Your task to perform on an android device: What's the weather going to be this weekend? Image 0: 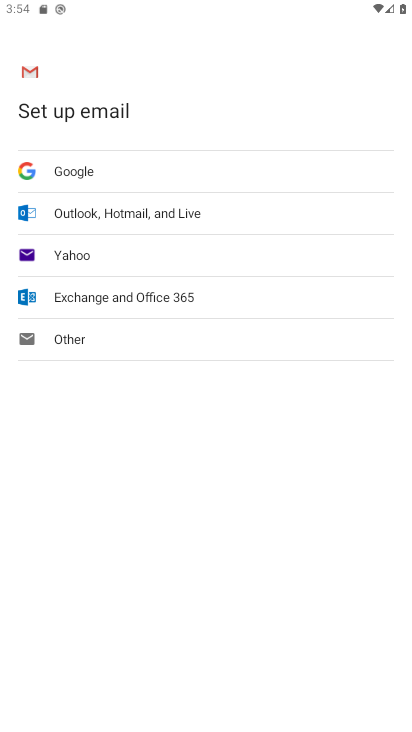
Step 0: press home button
Your task to perform on an android device: What's the weather going to be this weekend? Image 1: 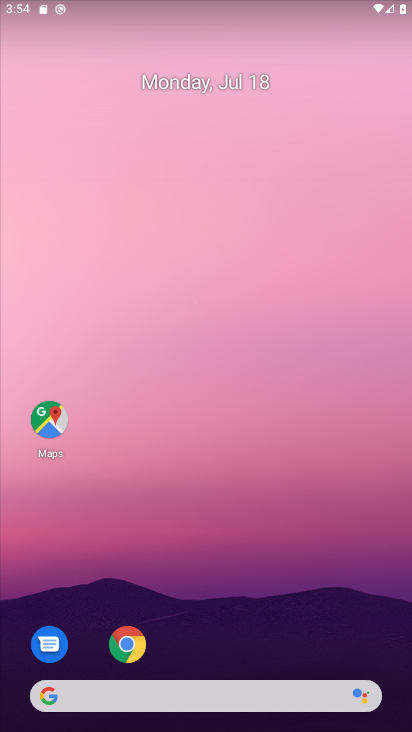
Step 1: click (224, 686)
Your task to perform on an android device: What's the weather going to be this weekend? Image 2: 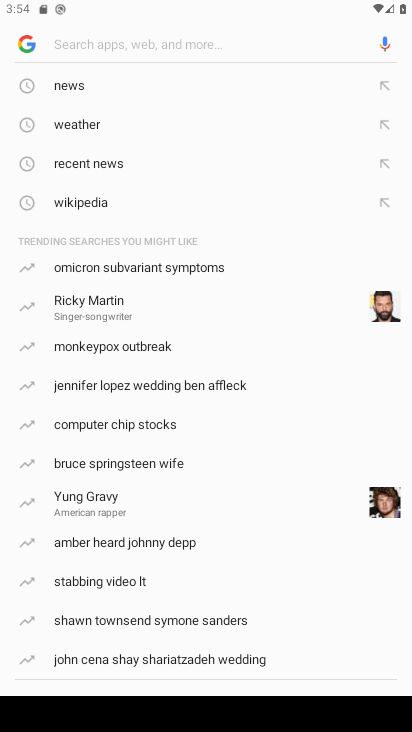
Step 2: click (128, 123)
Your task to perform on an android device: What's the weather going to be this weekend? Image 3: 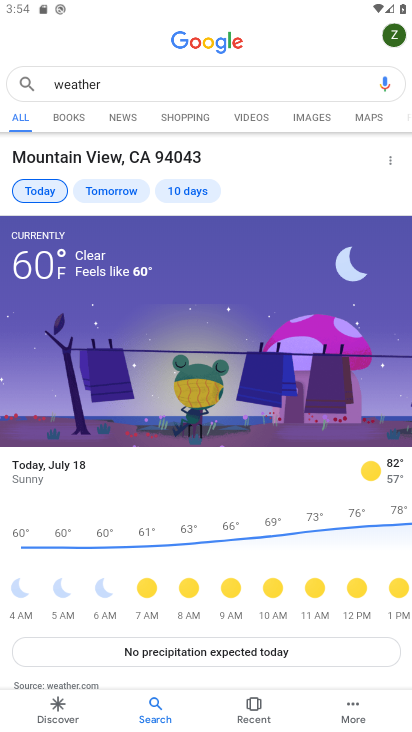
Step 3: task complete